Your task to perform on an android device: change alarm snooze length Image 0: 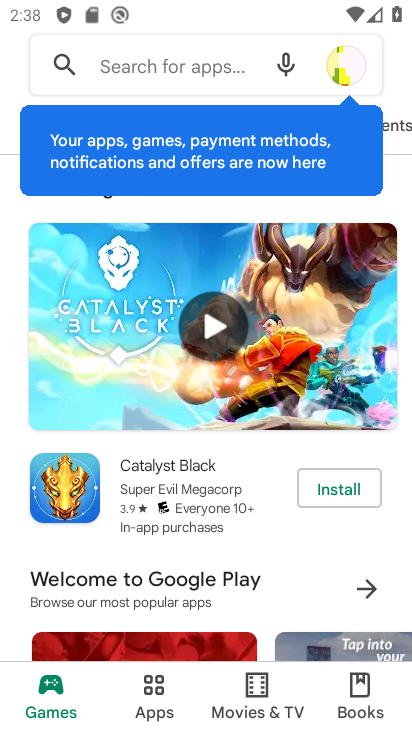
Step 0: press home button
Your task to perform on an android device: change alarm snooze length Image 1: 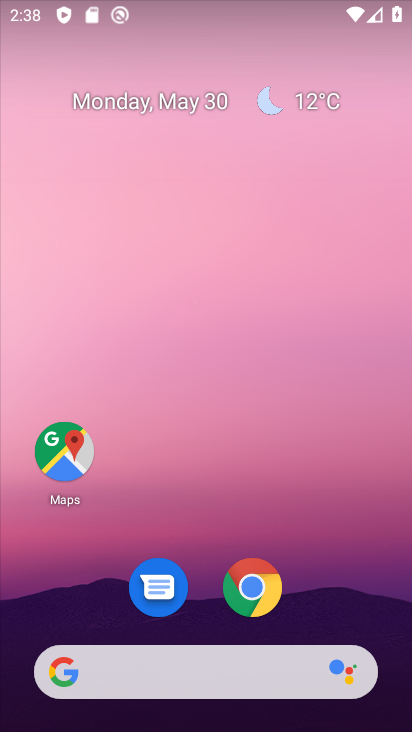
Step 1: click (196, 226)
Your task to perform on an android device: change alarm snooze length Image 2: 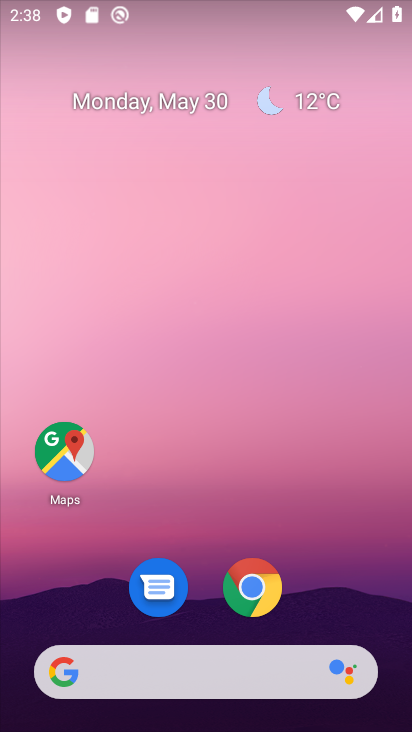
Step 2: drag from (209, 598) to (220, 213)
Your task to perform on an android device: change alarm snooze length Image 3: 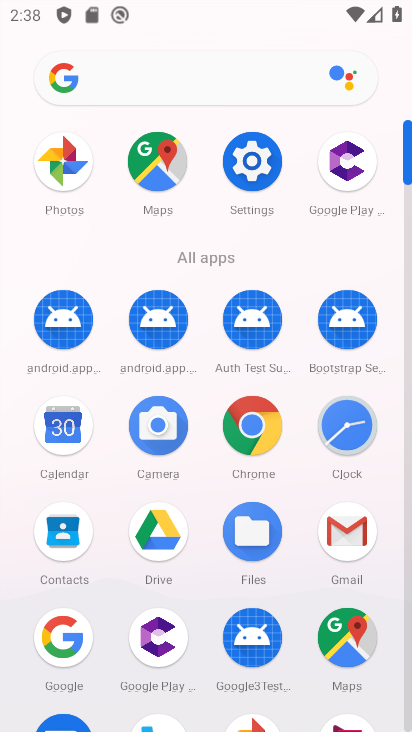
Step 3: click (348, 424)
Your task to perform on an android device: change alarm snooze length Image 4: 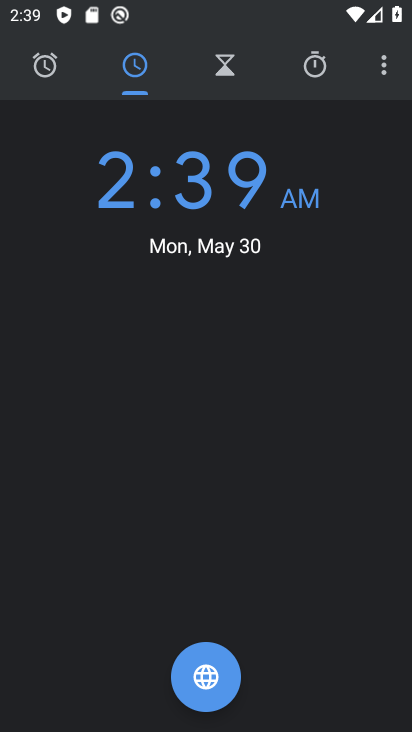
Step 4: click (387, 71)
Your task to perform on an android device: change alarm snooze length Image 5: 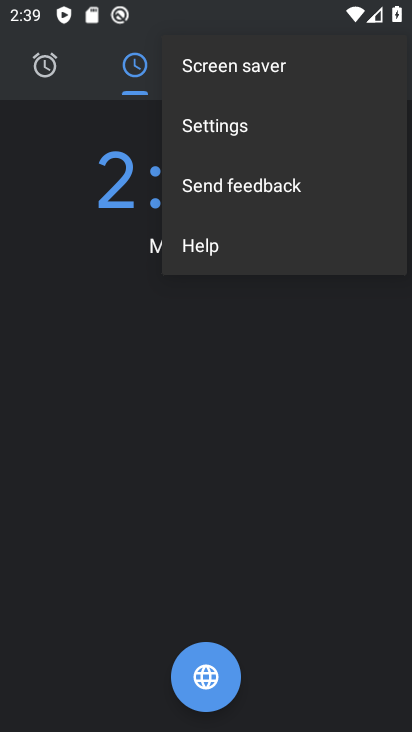
Step 5: click (224, 127)
Your task to perform on an android device: change alarm snooze length Image 6: 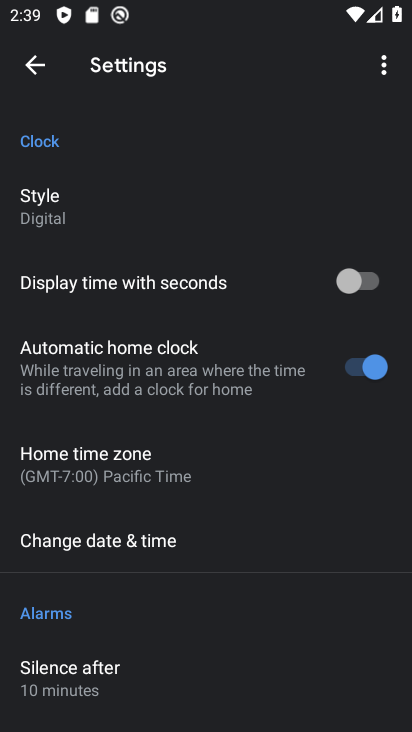
Step 6: drag from (73, 606) to (138, 228)
Your task to perform on an android device: change alarm snooze length Image 7: 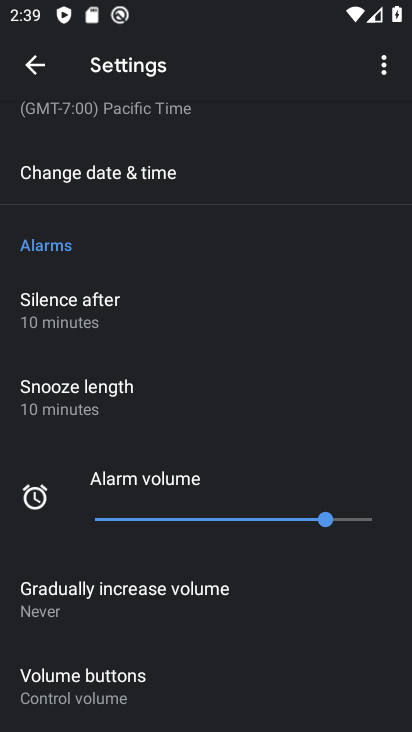
Step 7: click (114, 409)
Your task to perform on an android device: change alarm snooze length Image 8: 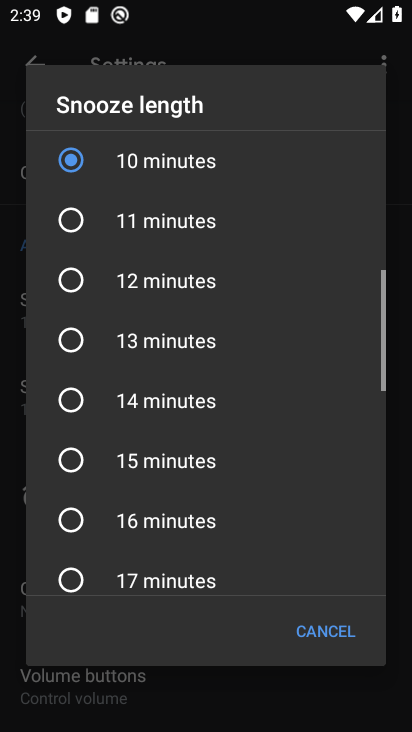
Step 8: click (133, 230)
Your task to perform on an android device: change alarm snooze length Image 9: 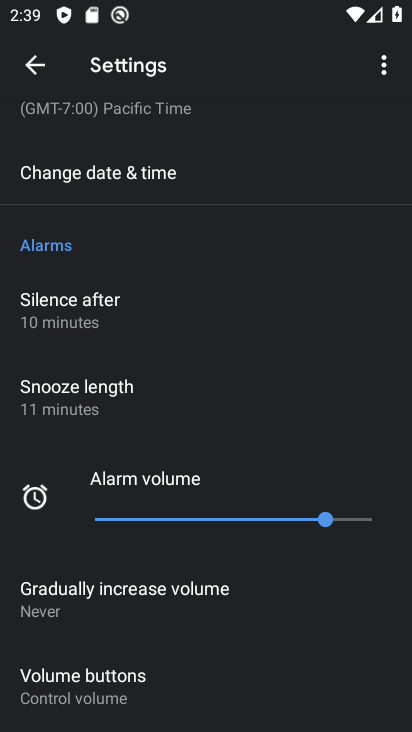
Step 9: task complete